Your task to perform on an android device: Check the news Image 0: 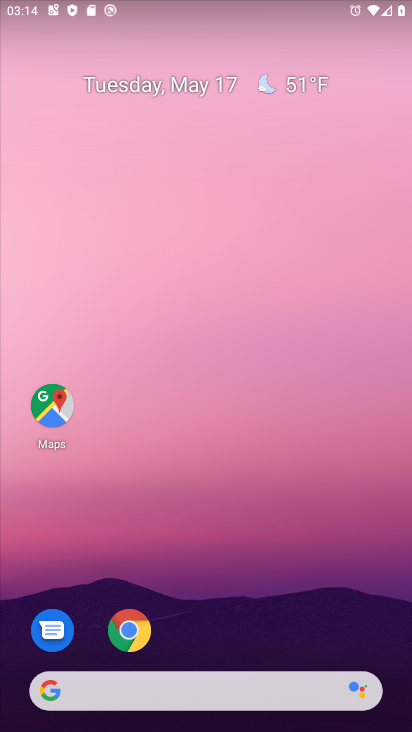
Step 0: drag from (233, 588) to (260, 66)
Your task to perform on an android device: Check the news Image 1: 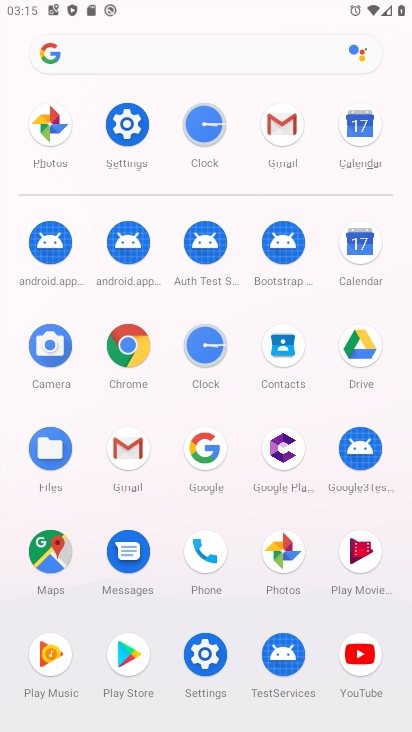
Step 1: click (115, 42)
Your task to perform on an android device: Check the news Image 2: 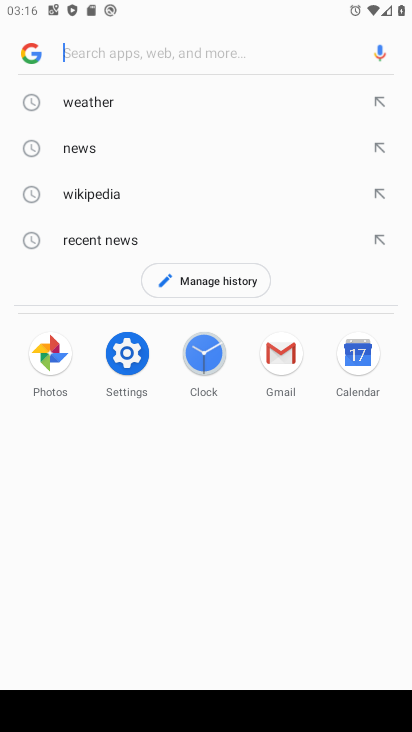
Step 2: click (78, 148)
Your task to perform on an android device: Check the news Image 3: 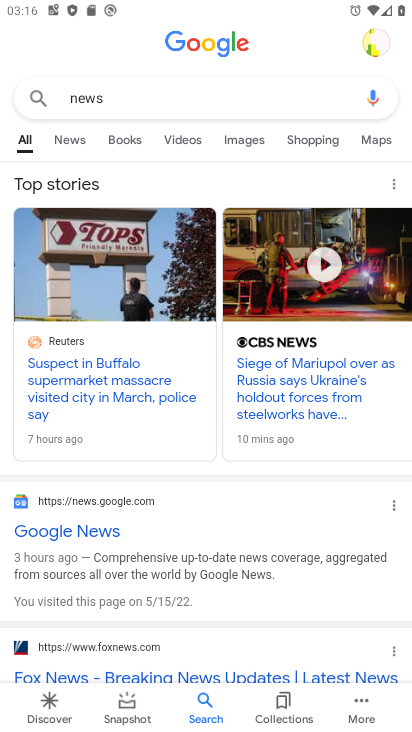
Step 3: task complete